Your task to perform on an android device: Open Chrome and go to settings Image 0: 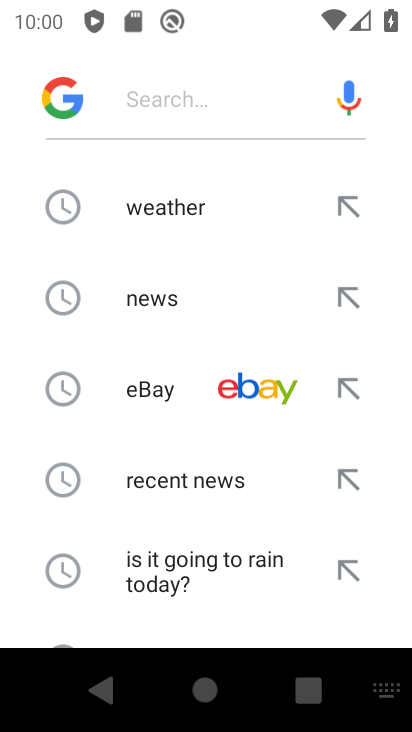
Step 0: press back button
Your task to perform on an android device: Open Chrome and go to settings Image 1: 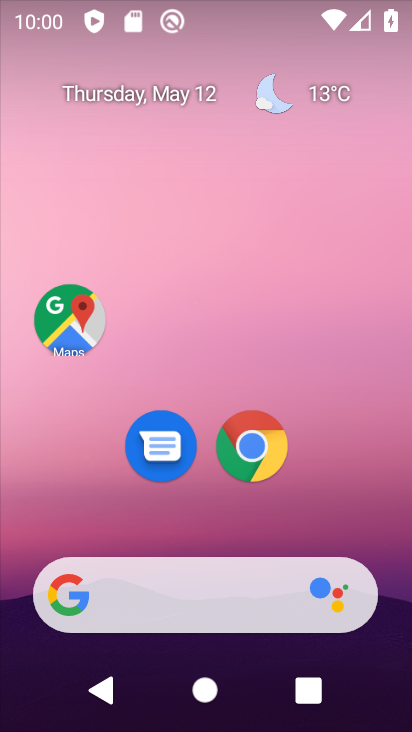
Step 1: drag from (168, 524) to (206, 69)
Your task to perform on an android device: Open Chrome and go to settings Image 2: 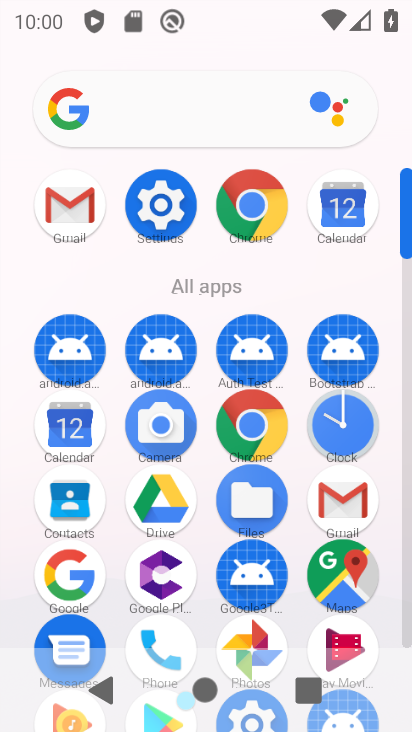
Step 2: click (161, 212)
Your task to perform on an android device: Open Chrome and go to settings Image 3: 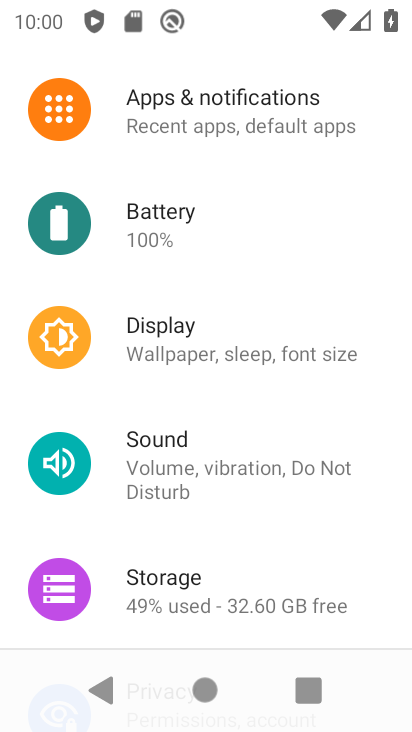
Step 3: press home button
Your task to perform on an android device: Open Chrome and go to settings Image 4: 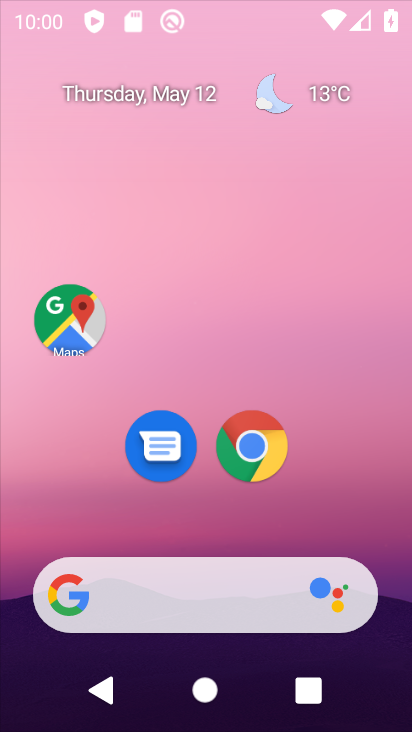
Step 4: drag from (264, 620) to (316, 215)
Your task to perform on an android device: Open Chrome and go to settings Image 5: 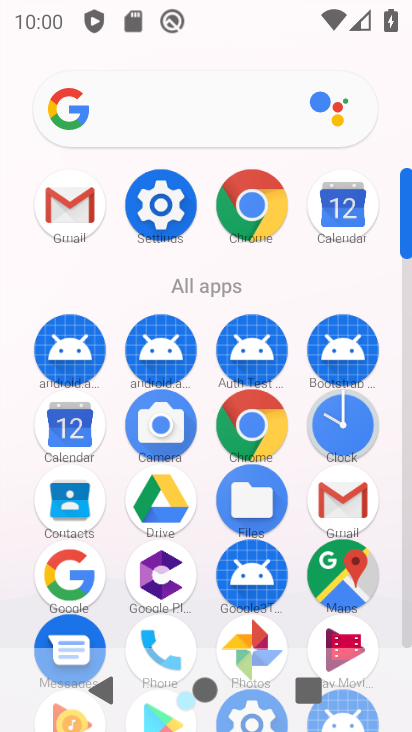
Step 5: click (239, 437)
Your task to perform on an android device: Open Chrome and go to settings Image 6: 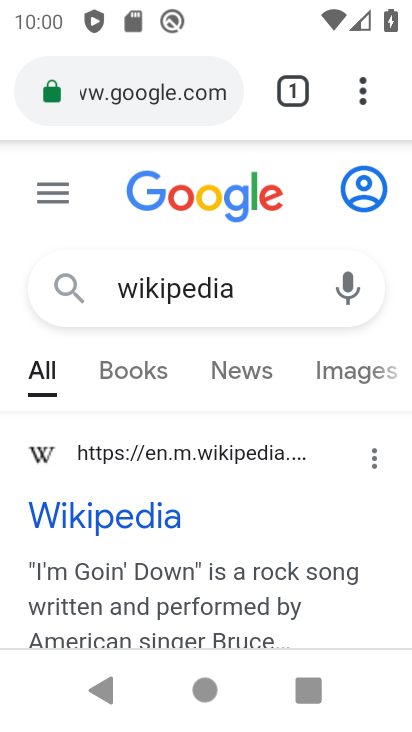
Step 6: task complete